Your task to perform on an android device: turn smart compose on in the gmail app Image 0: 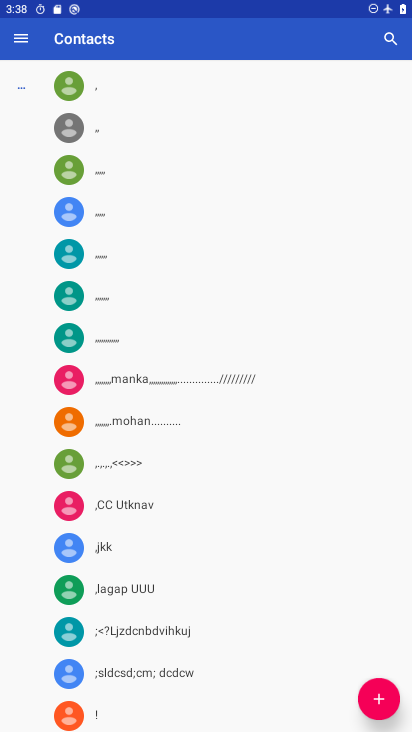
Step 0: press home button
Your task to perform on an android device: turn smart compose on in the gmail app Image 1: 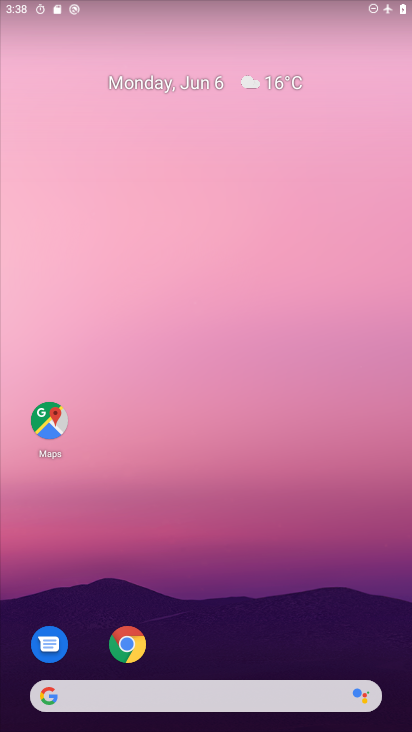
Step 1: drag from (236, 612) to (250, 140)
Your task to perform on an android device: turn smart compose on in the gmail app Image 2: 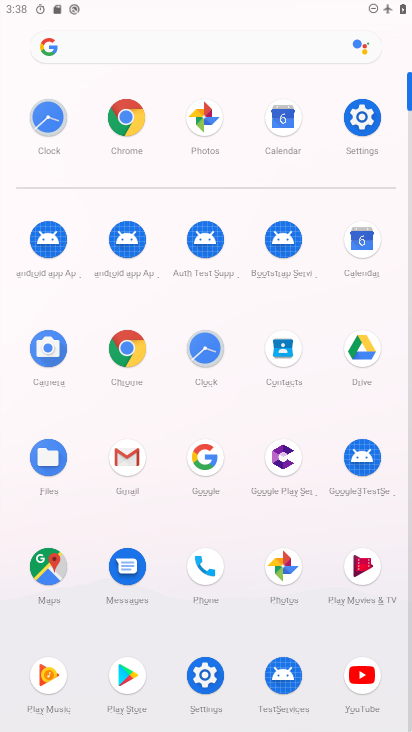
Step 2: click (125, 456)
Your task to perform on an android device: turn smart compose on in the gmail app Image 3: 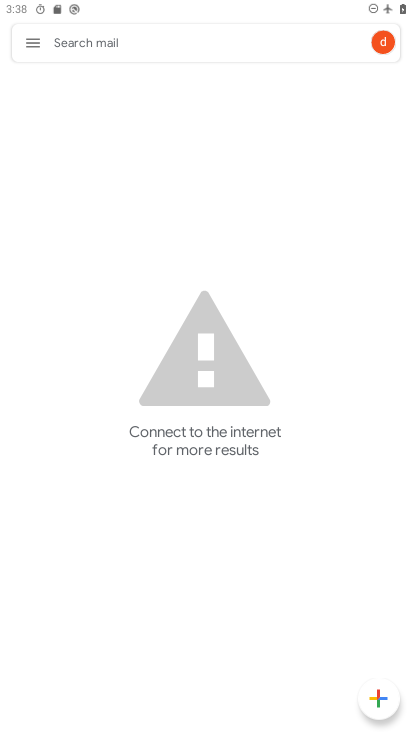
Step 3: click (30, 42)
Your task to perform on an android device: turn smart compose on in the gmail app Image 4: 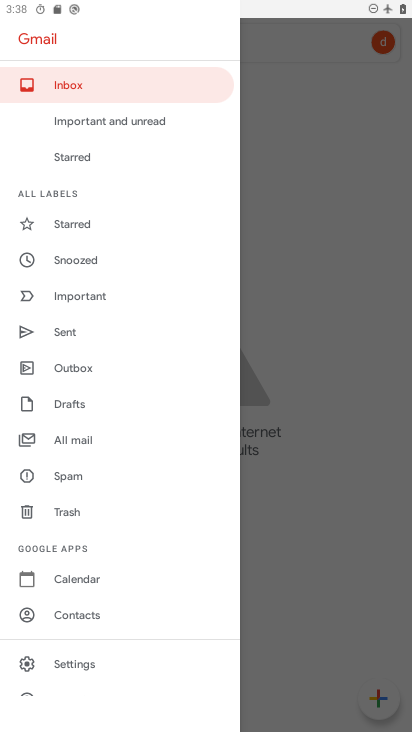
Step 4: click (91, 660)
Your task to perform on an android device: turn smart compose on in the gmail app Image 5: 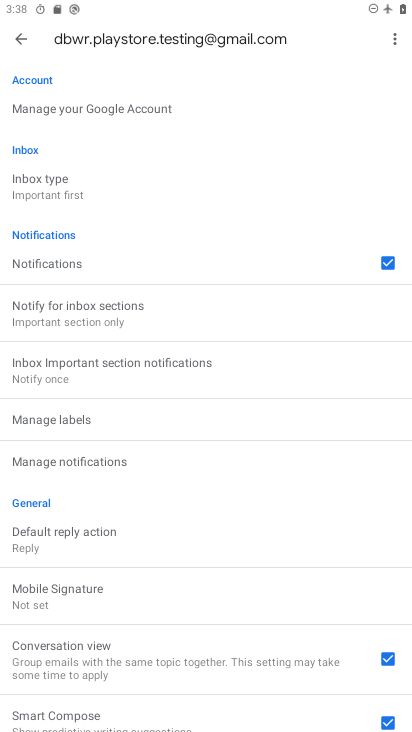
Step 5: task complete